Your task to perform on an android device: Open display settings Image 0: 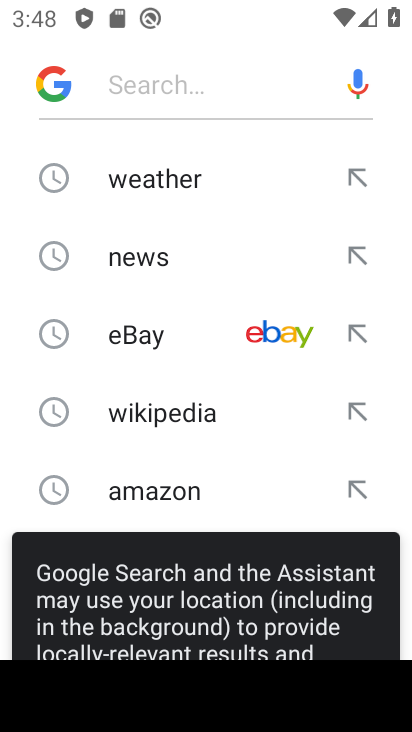
Step 0: press home button
Your task to perform on an android device: Open display settings Image 1: 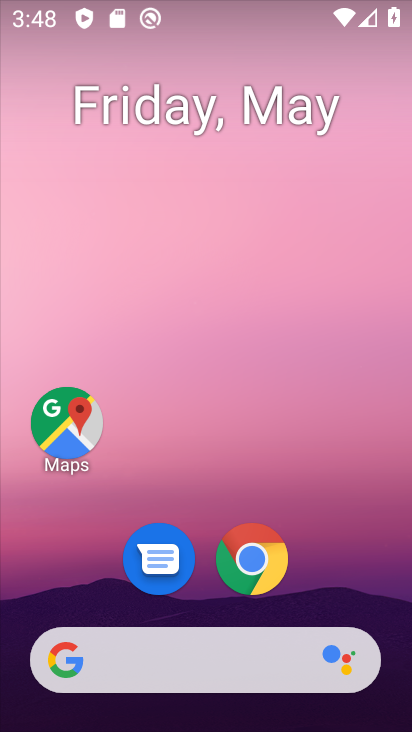
Step 1: drag from (358, 549) to (310, 103)
Your task to perform on an android device: Open display settings Image 2: 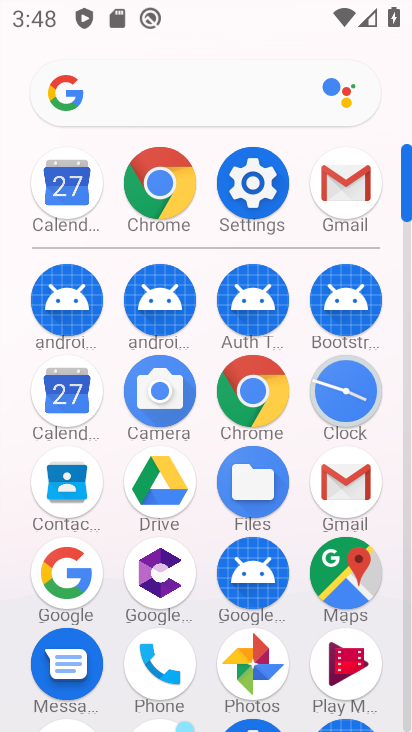
Step 2: click (262, 192)
Your task to perform on an android device: Open display settings Image 3: 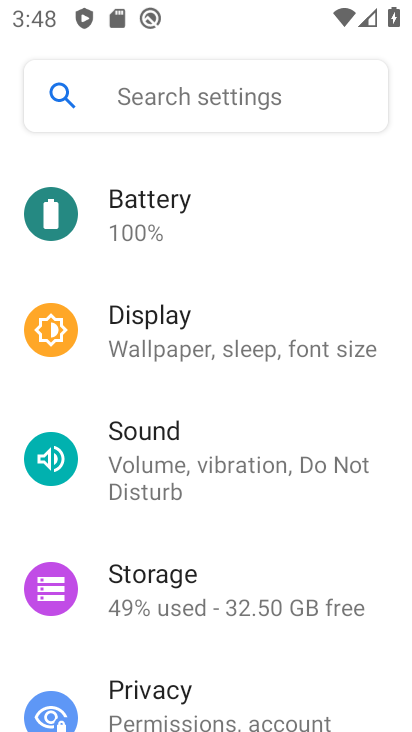
Step 3: click (216, 334)
Your task to perform on an android device: Open display settings Image 4: 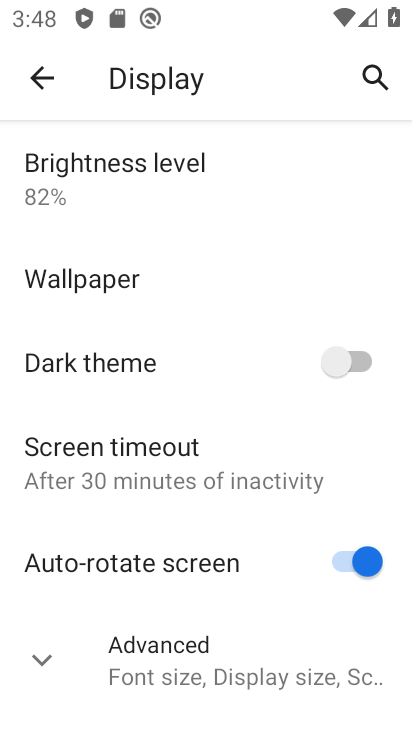
Step 4: task complete